Your task to perform on an android device: When is my next meeting? Image 0: 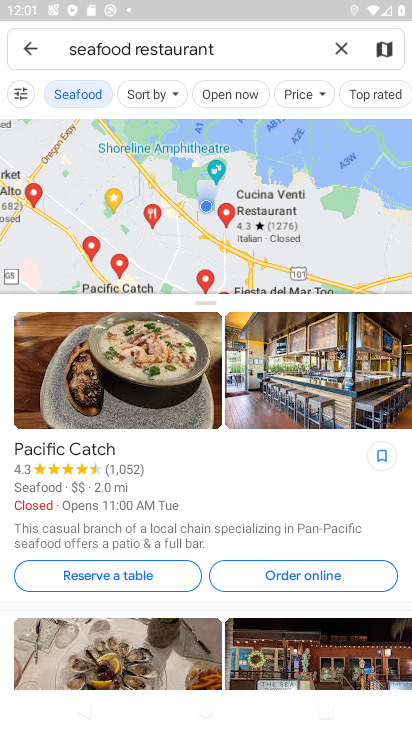
Step 0: press home button
Your task to perform on an android device: When is my next meeting? Image 1: 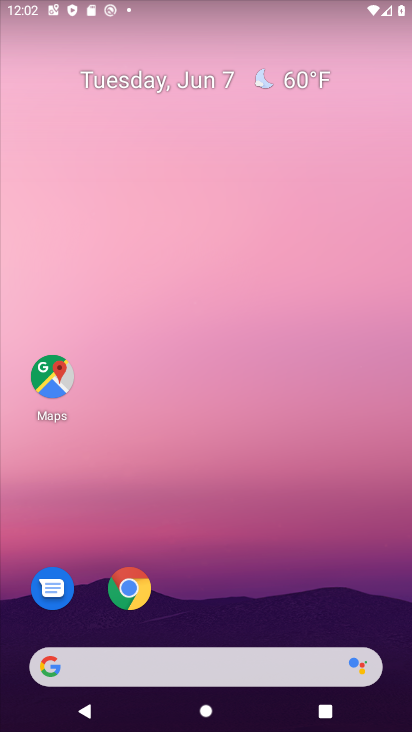
Step 1: drag from (265, 577) to (318, 146)
Your task to perform on an android device: When is my next meeting? Image 2: 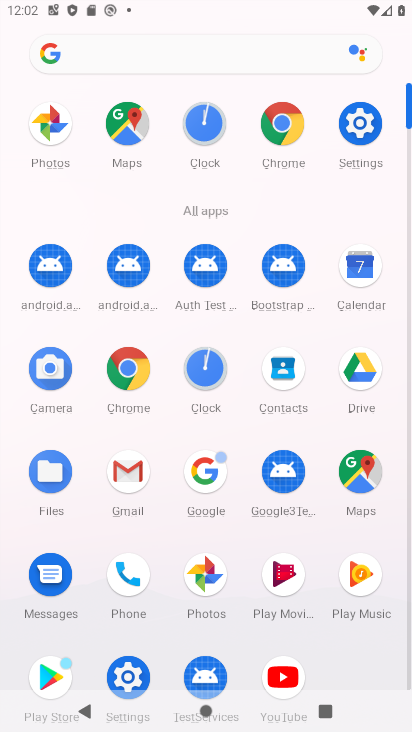
Step 2: click (346, 276)
Your task to perform on an android device: When is my next meeting? Image 3: 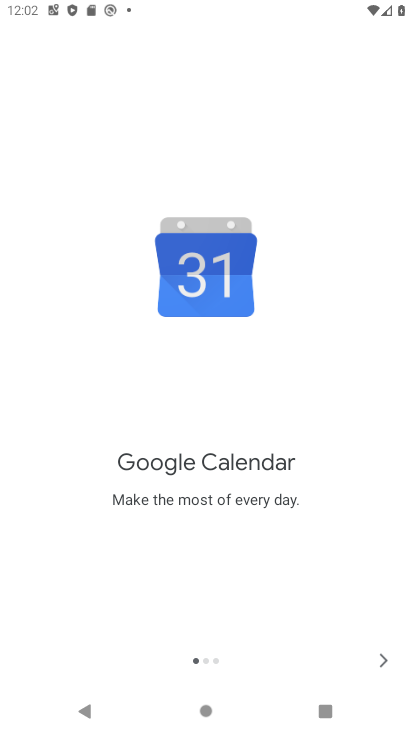
Step 3: click (373, 662)
Your task to perform on an android device: When is my next meeting? Image 4: 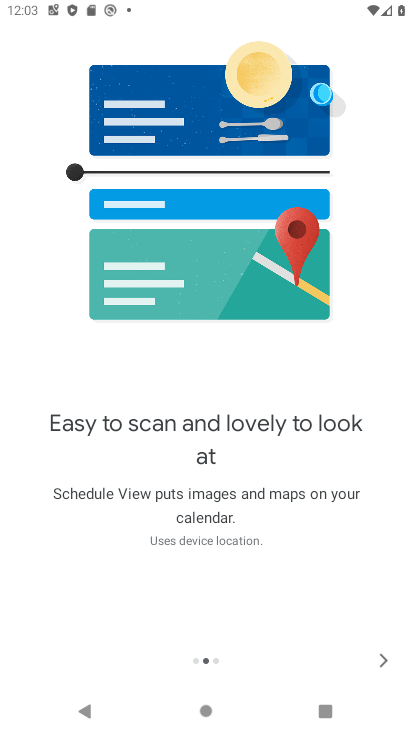
Step 4: click (385, 669)
Your task to perform on an android device: When is my next meeting? Image 5: 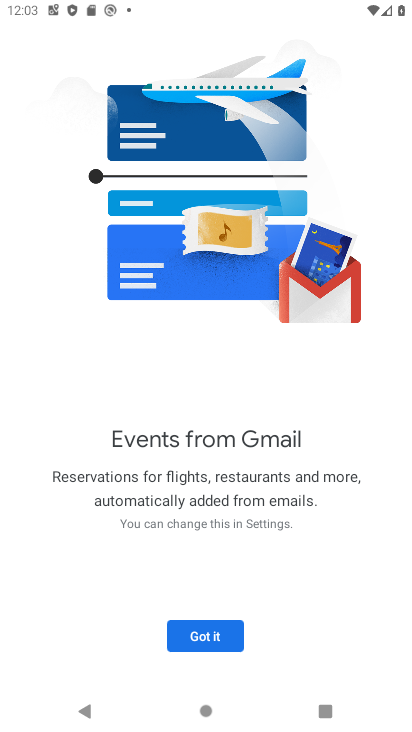
Step 5: click (221, 630)
Your task to perform on an android device: When is my next meeting? Image 6: 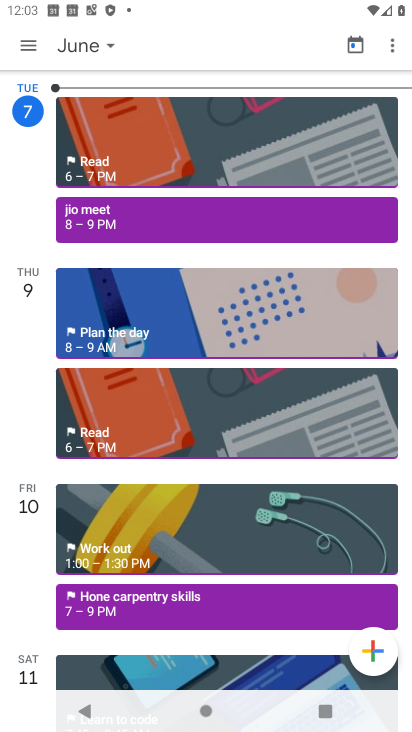
Step 6: task complete